Your task to perform on an android device: uninstall "File Manager" Image 0: 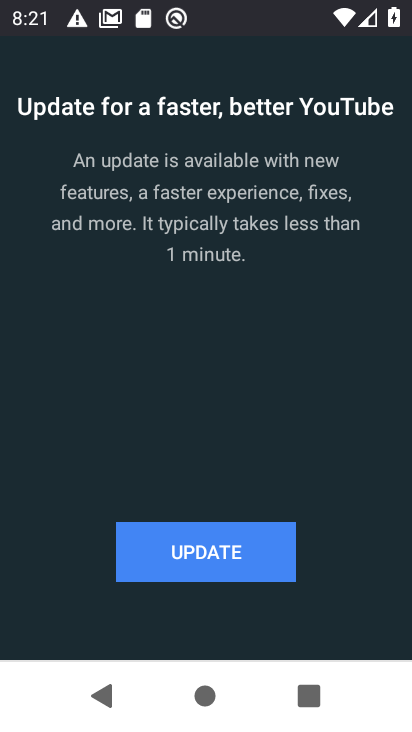
Step 0: press home button
Your task to perform on an android device: uninstall "File Manager" Image 1: 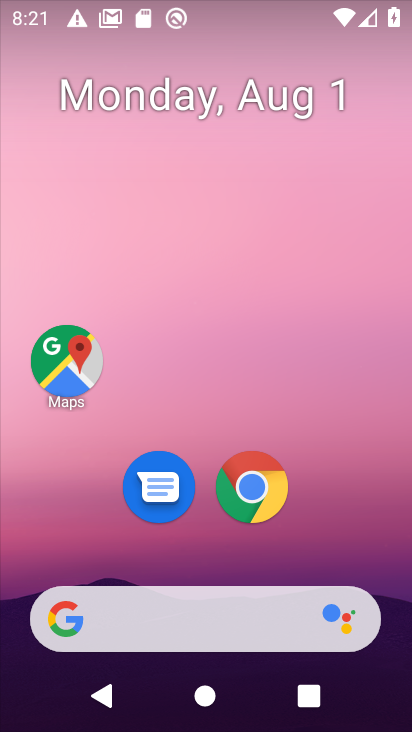
Step 1: drag from (369, 554) to (345, 56)
Your task to perform on an android device: uninstall "File Manager" Image 2: 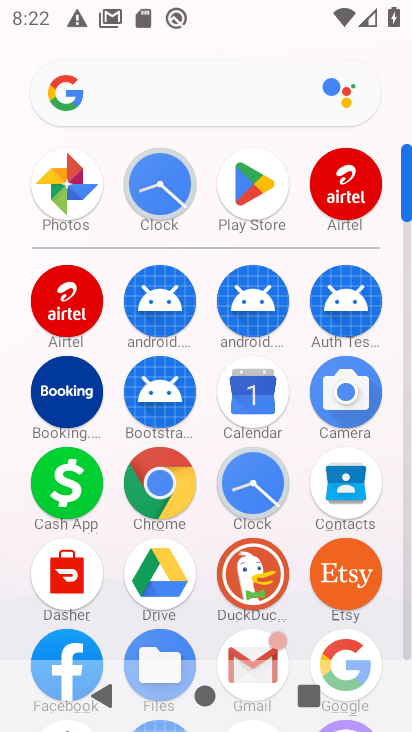
Step 2: click (267, 182)
Your task to perform on an android device: uninstall "File Manager" Image 3: 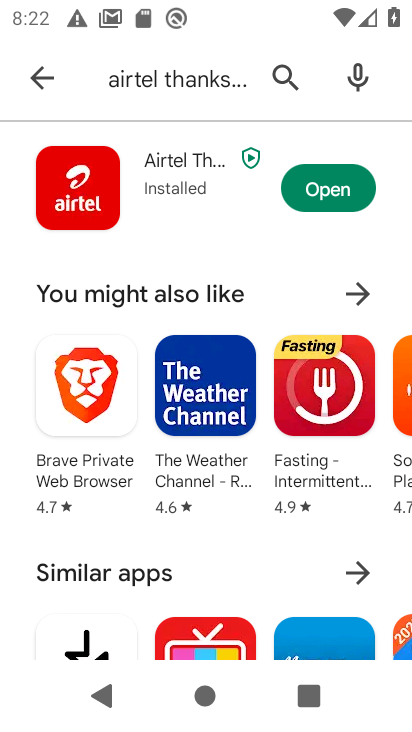
Step 3: click (280, 72)
Your task to perform on an android device: uninstall "File Manager" Image 4: 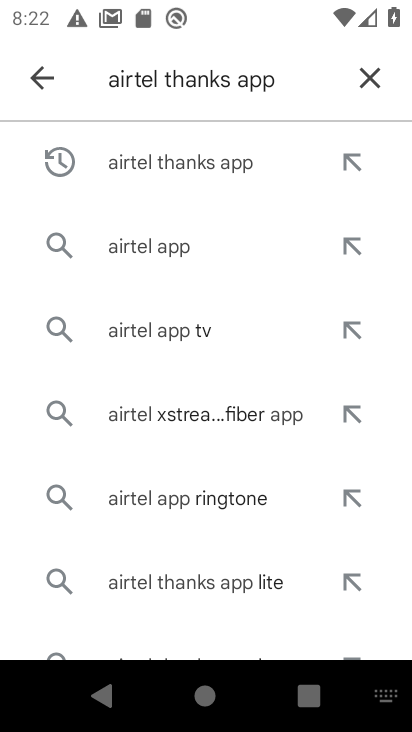
Step 4: click (367, 77)
Your task to perform on an android device: uninstall "File Manager" Image 5: 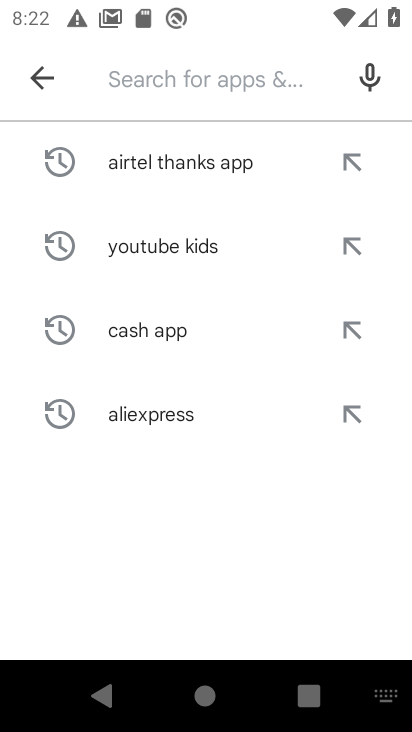
Step 5: click (285, 94)
Your task to perform on an android device: uninstall "File Manager" Image 6: 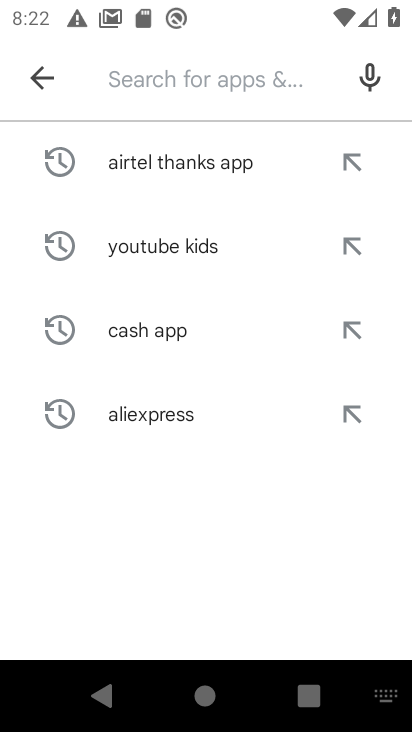
Step 6: type "file manger"
Your task to perform on an android device: uninstall "File Manager" Image 7: 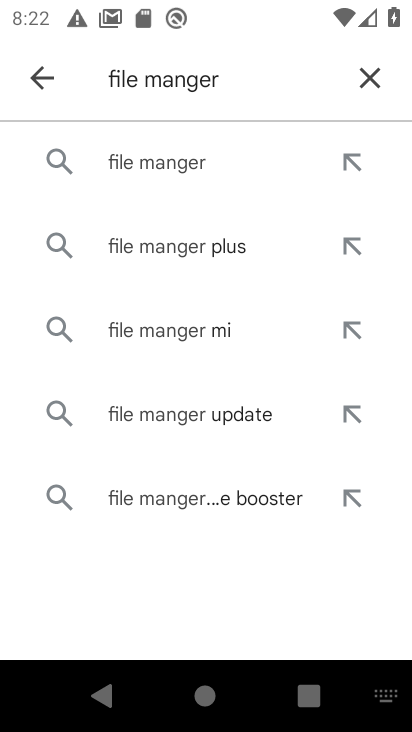
Step 7: click (225, 165)
Your task to perform on an android device: uninstall "File Manager" Image 8: 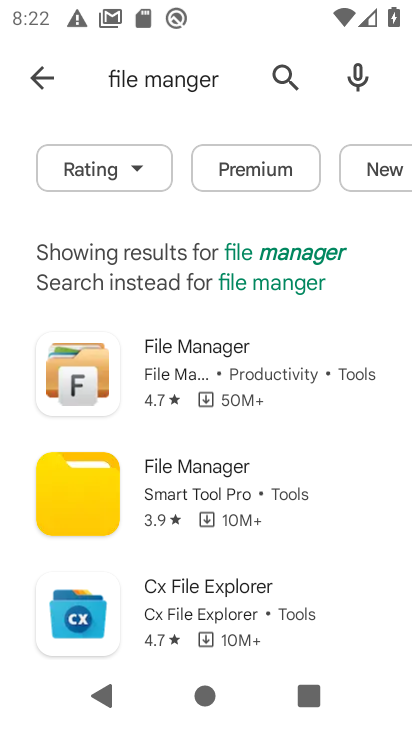
Step 8: task complete